Your task to perform on an android device: Open Google Chrome Image 0: 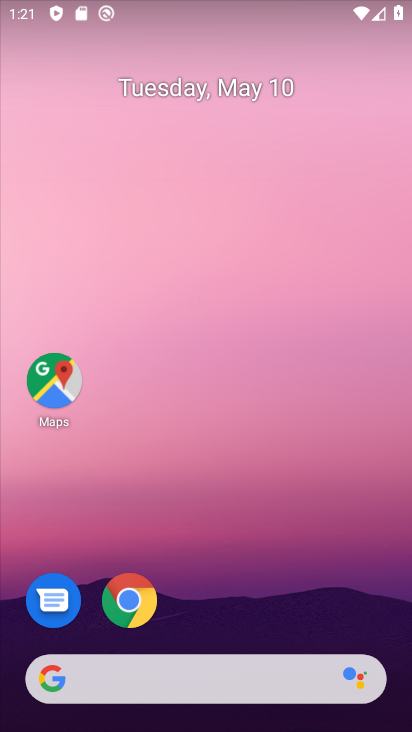
Step 0: click (121, 589)
Your task to perform on an android device: Open Google Chrome Image 1: 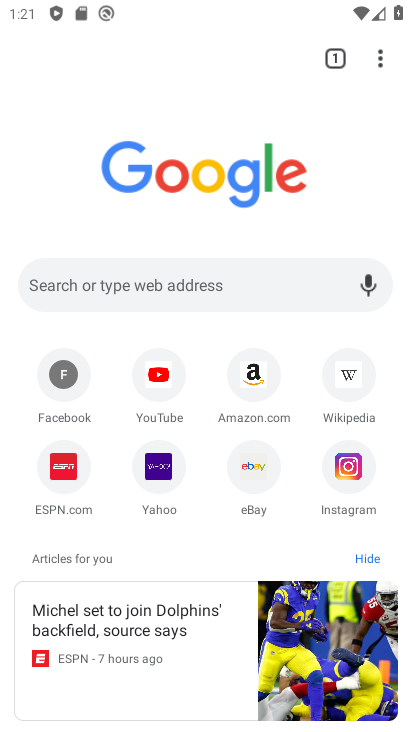
Step 1: task complete